Your task to perform on an android device: Open Amazon Image 0: 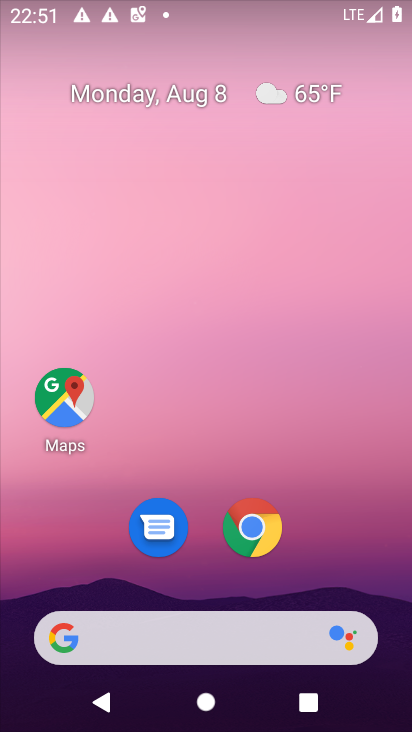
Step 0: click (251, 528)
Your task to perform on an android device: Open Amazon Image 1: 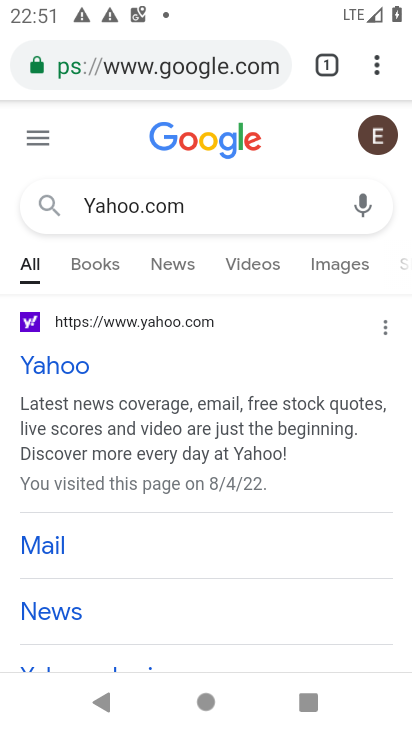
Step 1: click (188, 206)
Your task to perform on an android device: Open Amazon Image 2: 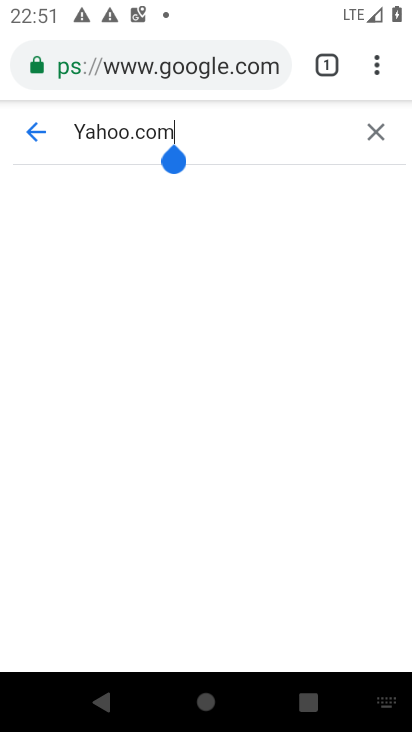
Step 2: click (254, 72)
Your task to perform on an android device: Open Amazon Image 3: 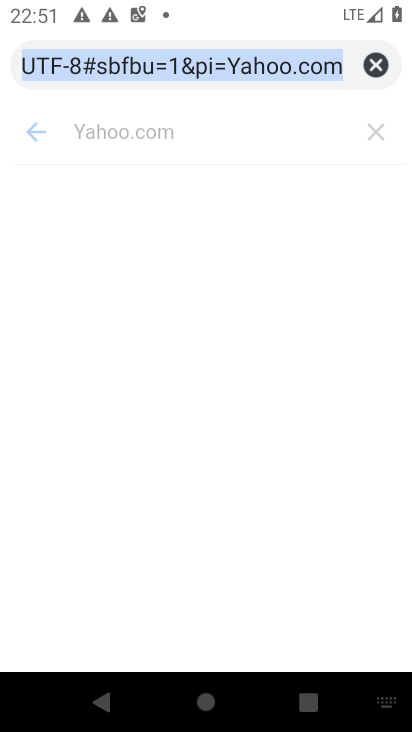
Step 3: click (372, 64)
Your task to perform on an android device: Open Amazon Image 4: 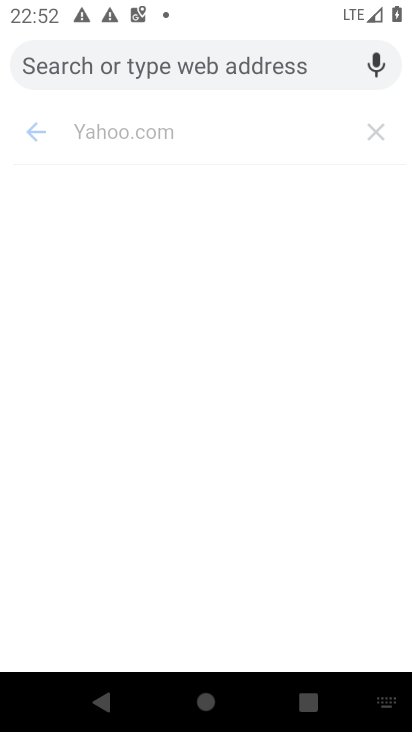
Step 4: type "Amazon"
Your task to perform on an android device: Open Amazon Image 5: 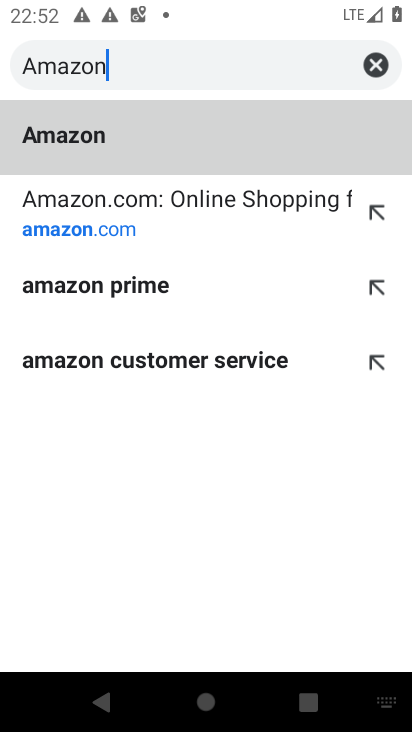
Step 5: click (79, 134)
Your task to perform on an android device: Open Amazon Image 6: 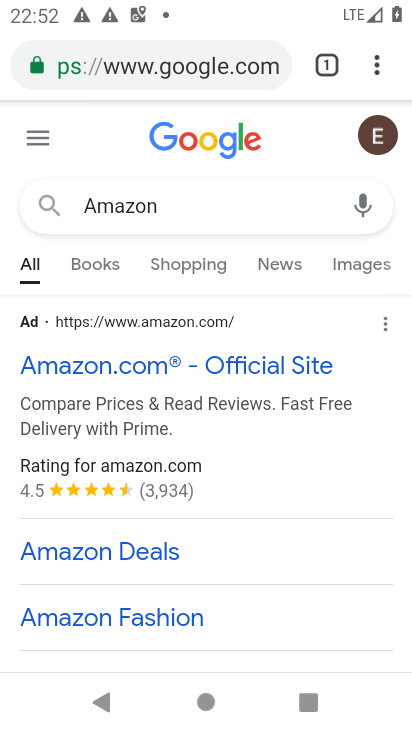
Step 6: task complete